Your task to perform on an android device: When is my next appointment? Image 0: 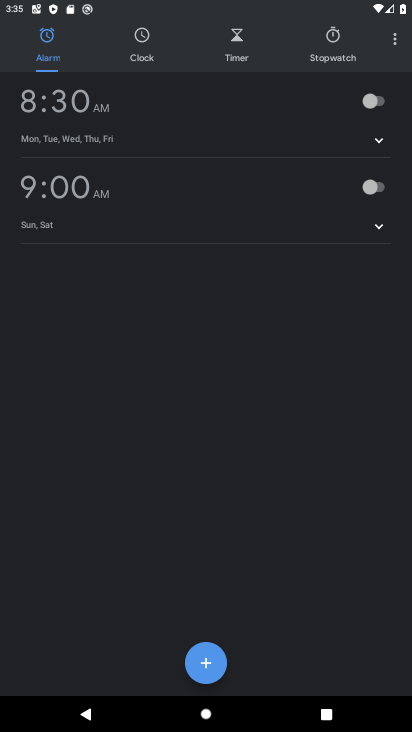
Step 0: press home button
Your task to perform on an android device: When is my next appointment? Image 1: 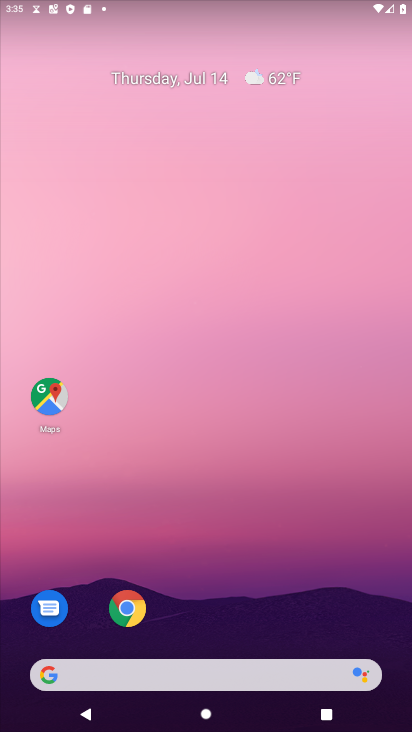
Step 1: drag from (210, 675) to (231, 198)
Your task to perform on an android device: When is my next appointment? Image 2: 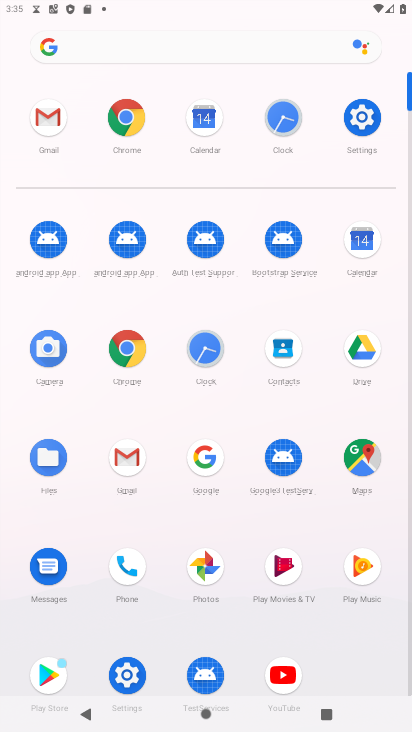
Step 2: click (351, 243)
Your task to perform on an android device: When is my next appointment? Image 3: 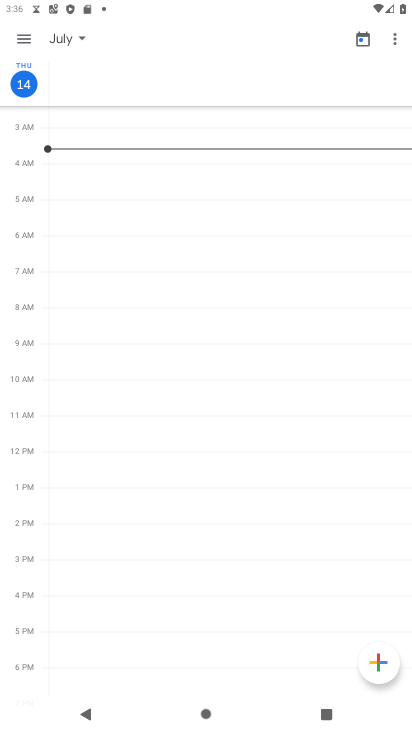
Step 3: click (25, 51)
Your task to perform on an android device: When is my next appointment? Image 4: 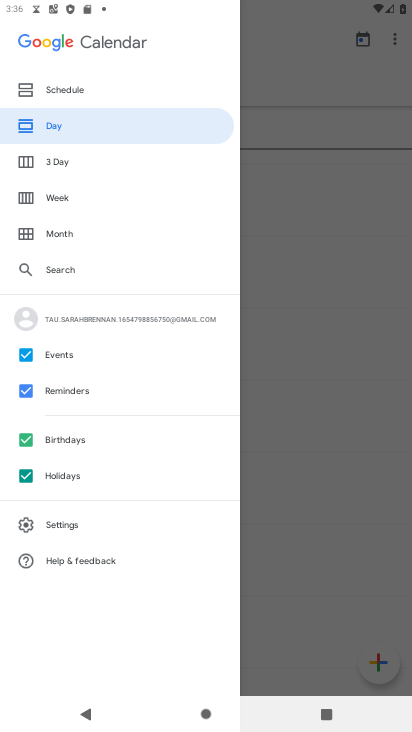
Step 4: click (74, 94)
Your task to perform on an android device: When is my next appointment? Image 5: 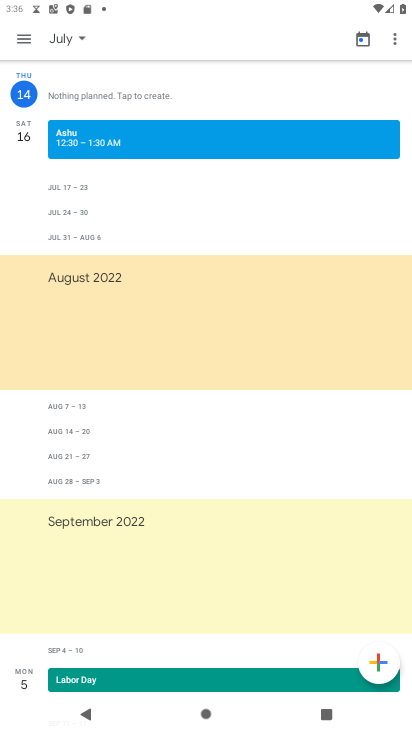
Step 5: task complete